Your task to perform on an android device: Go to Android settings Image 0: 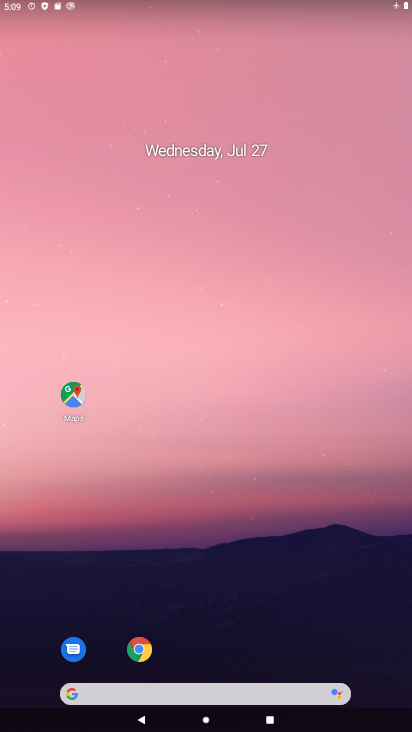
Step 0: drag from (206, 685) to (214, 120)
Your task to perform on an android device: Go to Android settings Image 1: 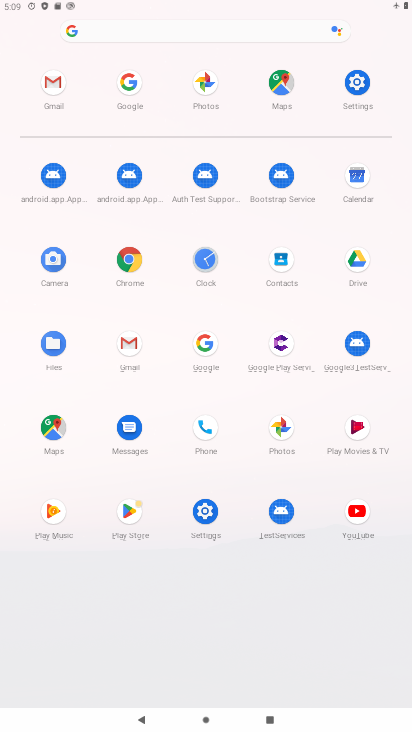
Step 1: press home button
Your task to perform on an android device: Go to Android settings Image 2: 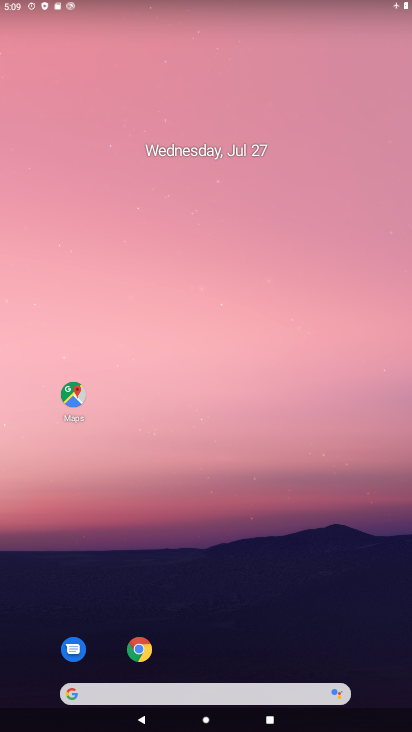
Step 2: drag from (165, 693) to (101, 94)
Your task to perform on an android device: Go to Android settings Image 3: 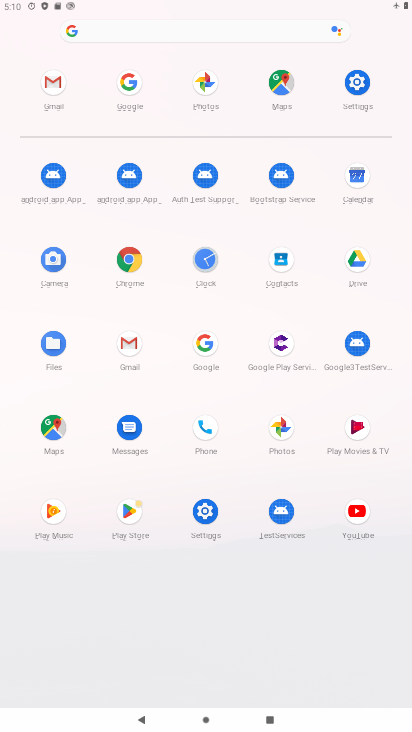
Step 3: click (356, 85)
Your task to perform on an android device: Go to Android settings Image 4: 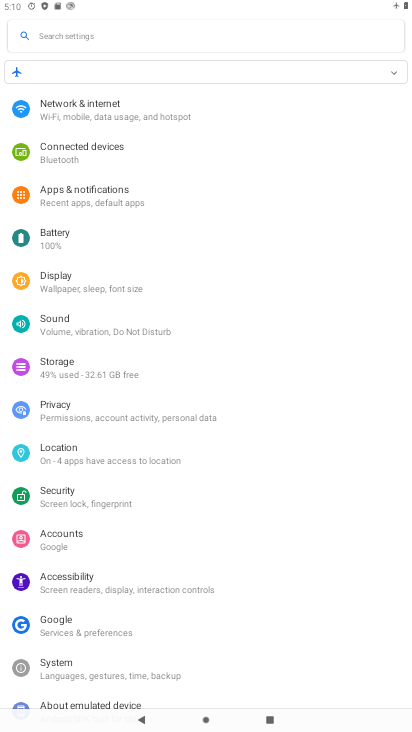
Step 4: task complete